Your task to perform on an android device: Open Google Image 0: 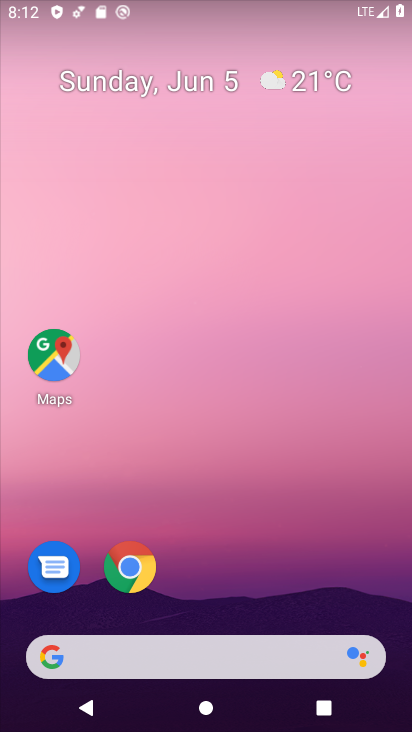
Step 0: drag from (217, 639) to (249, 406)
Your task to perform on an android device: Open Google Image 1: 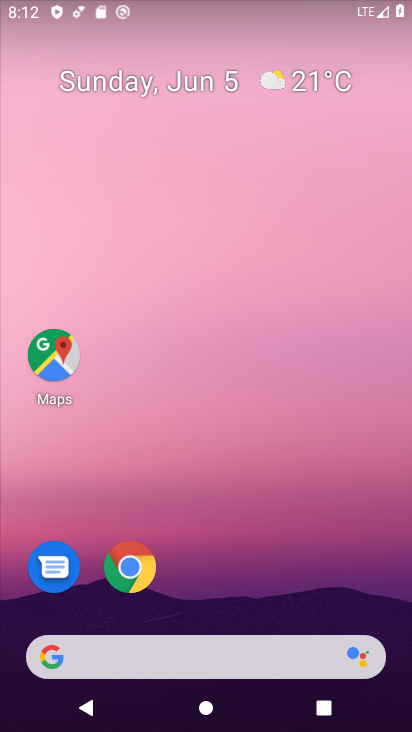
Step 1: drag from (197, 618) to (204, 392)
Your task to perform on an android device: Open Google Image 2: 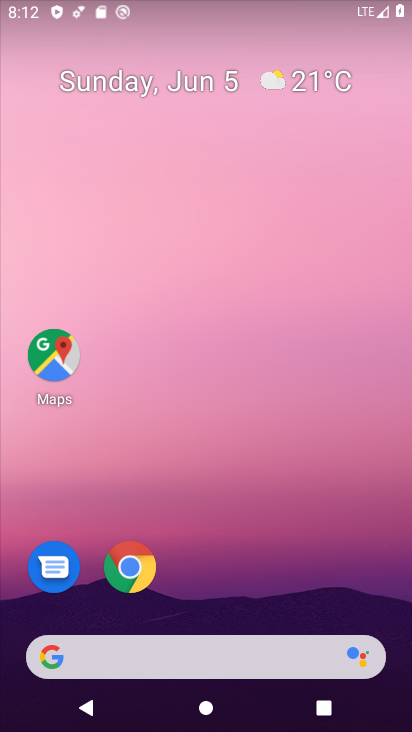
Step 2: drag from (230, 626) to (240, 205)
Your task to perform on an android device: Open Google Image 3: 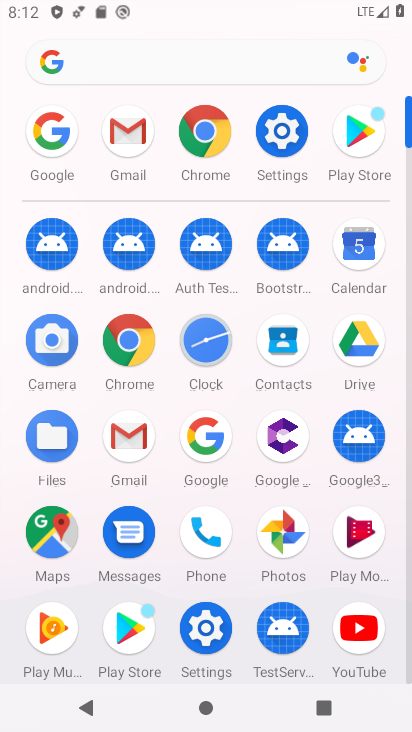
Step 3: click (200, 459)
Your task to perform on an android device: Open Google Image 4: 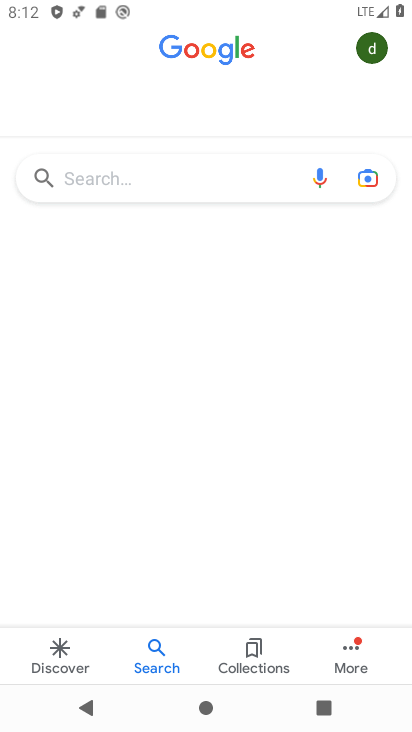
Step 4: task complete